Your task to perform on an android device: Open calendar and show me the second week of next month Image 0: 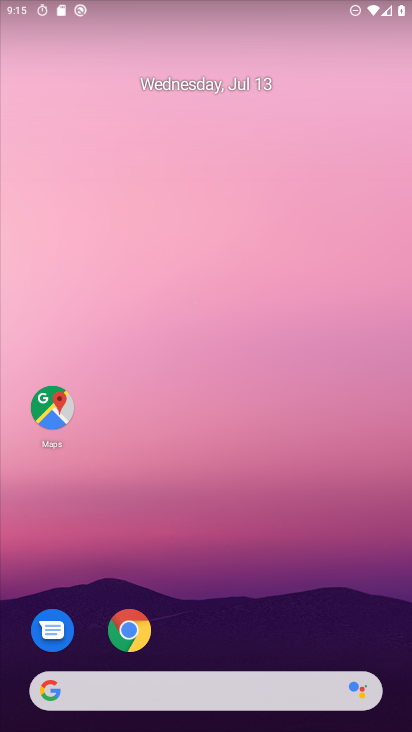
Step 0: drag from (386, 620) to (185, 6)
Your task to perform on an android device: Open calendar and show me the second week of next month Image 1: 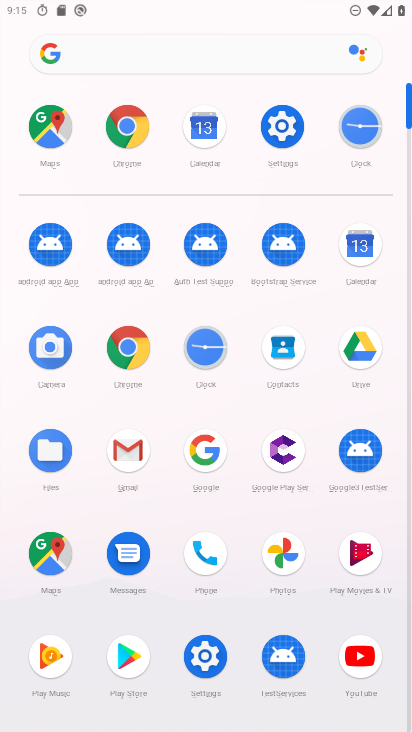
Step 1: click (356, 234)
Your task to perform on an android device: Open calendar and show me the second week of next month Image 2: 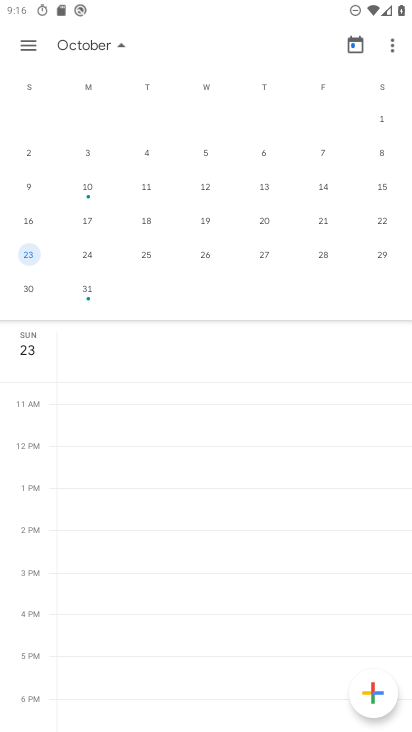
Step 2: drag from (355, 175) to (3, 207)
Your task to perform on an android device: Open calendar and show me the second week of next month Image 3: 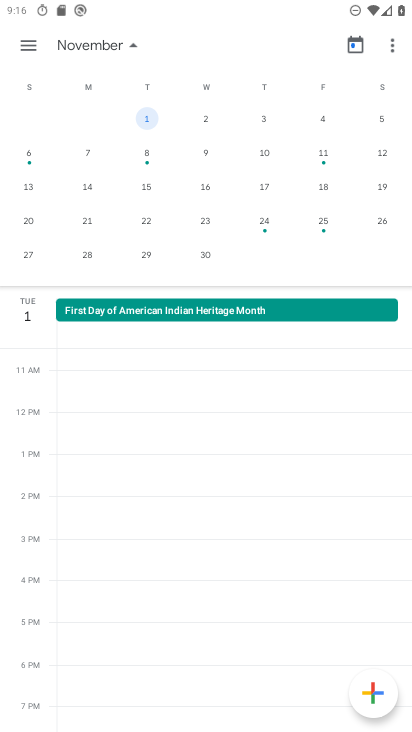
Step 3: click (22, 187)
Your task to perform on an android device: Open calendar and show me the second week of next month Image 4: 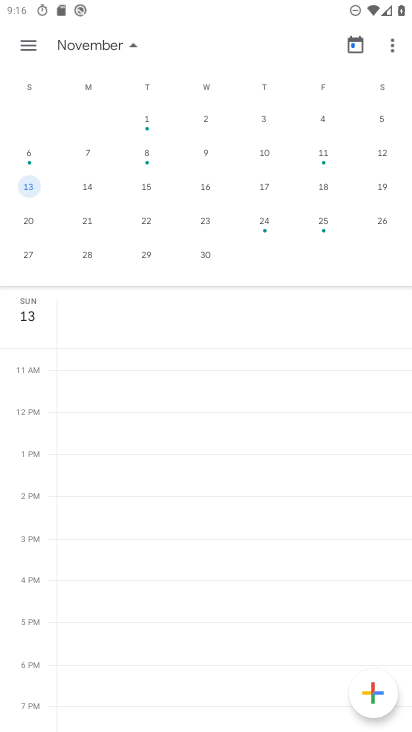
Step 4: task complete